Your task to perform on an android device: Go to Reddit.com Image 0: 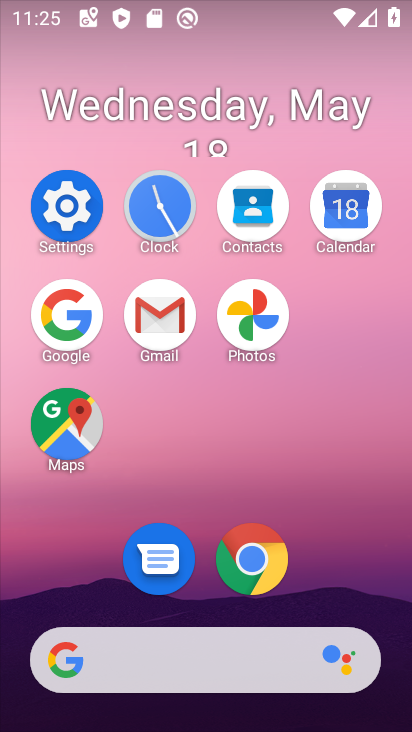
Step 0: click (279, 557)
Your task to perform on an android device: Go to Reddit.com Image 1: 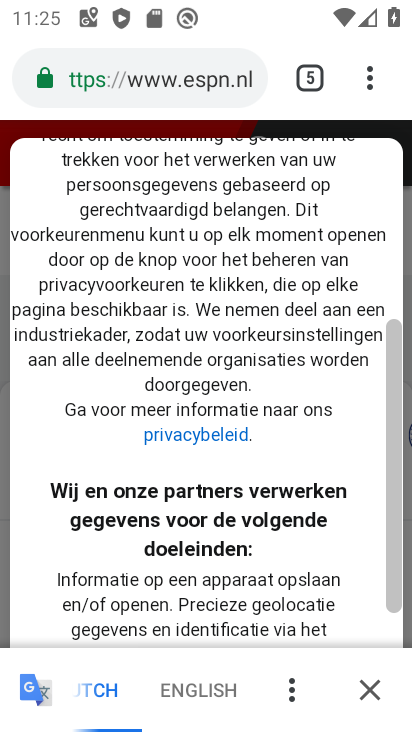
Step 1: click (314, 82)
Your task to perform on an android device: Go to Reddit.com Image 2: 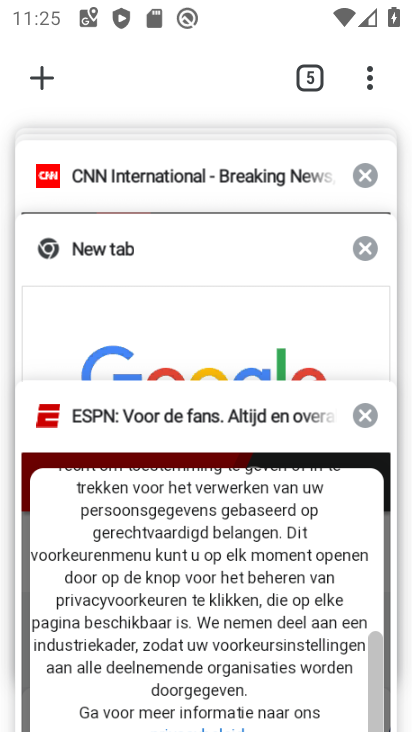
Step 2: drag from (210, 216) to (209, 608)
Your task to perform on an android device: Go to Reddit.com Image 3: 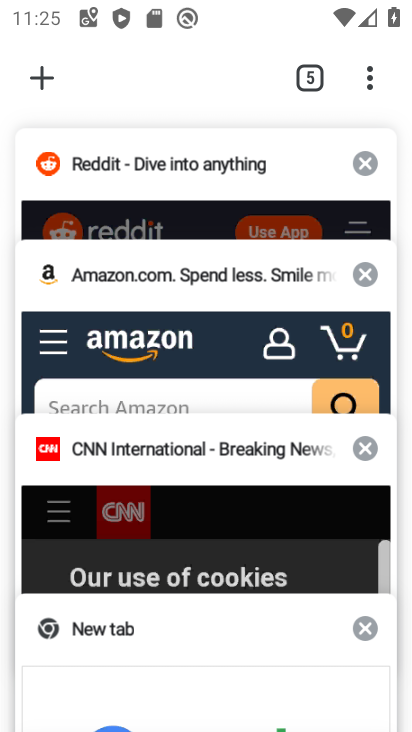
Step 3: click (178, 192)
Your task to perform on an android device: Go to Reddit.com Image 4: 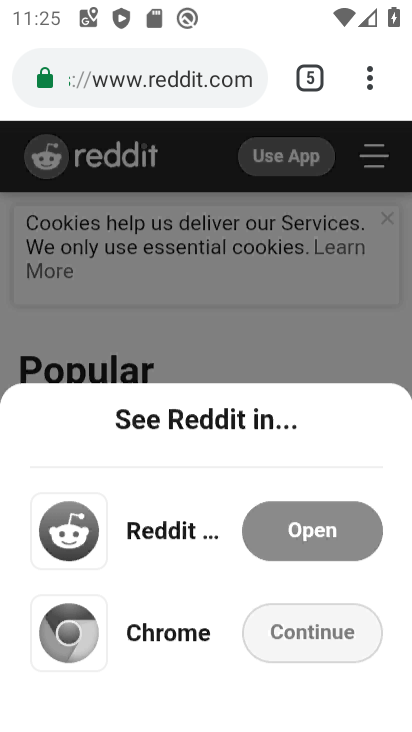
Step 4: task complete